Your task to perform on an android device: toggle pop-ups in chrome Image 0: 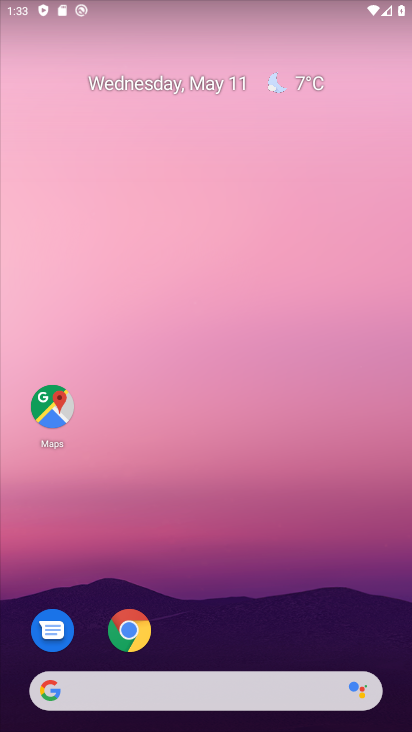
Step 0: drag from (368, 622) to (275, 44)
Your task to perform on an android device: toggle pop-ups in chrome Image 1: 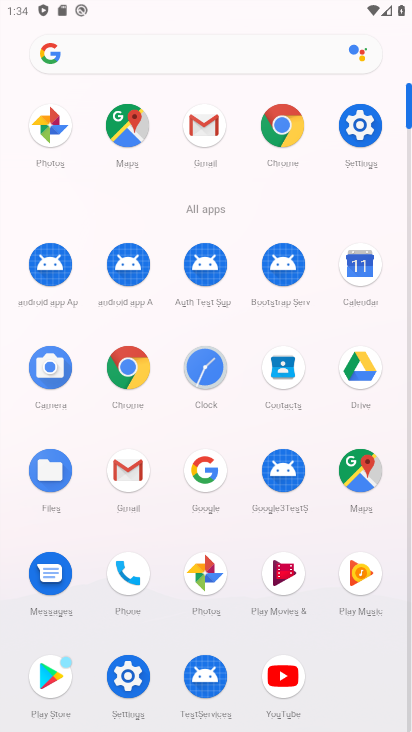
Step 1: click (137, 383)
Your task to perform on an android device: toggle pop-ups in chrome Image 2: 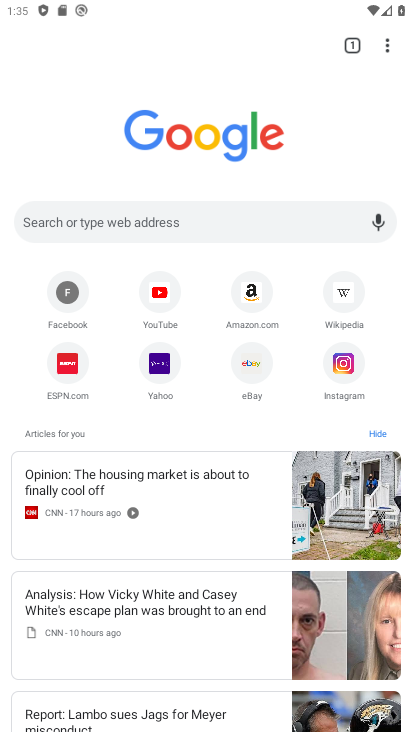
Step 2: click (387, 47)
Your task to perform on an android device: toggle pop-ups in chrome Image 3: 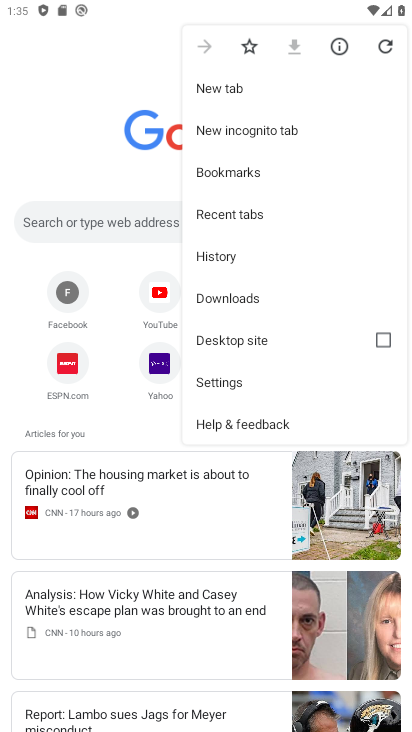
Step 3: click (252, 378)
Your task to perform on an android device: toggle pop-ups in chrome Image 4: 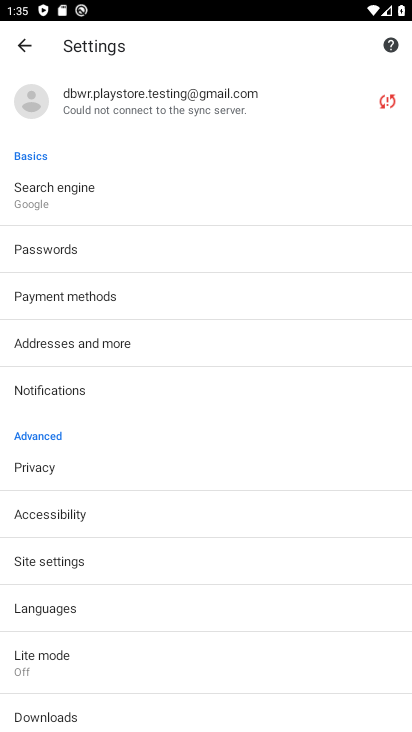
Step 4: click (124, 549)
Your task to perform on an android device: toggle pop-ups in chrome Image 5: 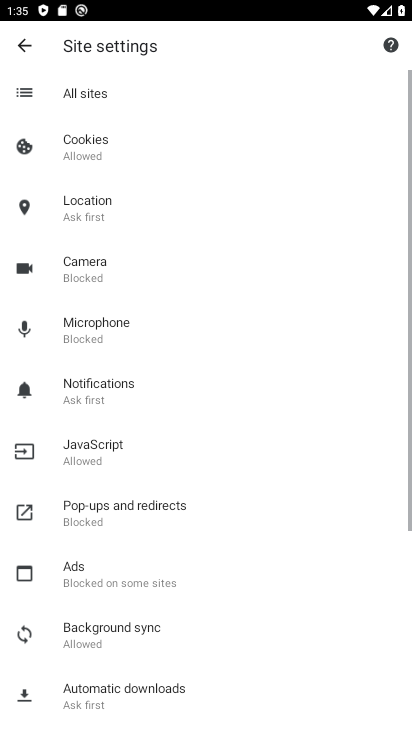
Step 5: click (119, 513)
Your task to perform on an android device: toggle pop-ups in chrome Image 6: 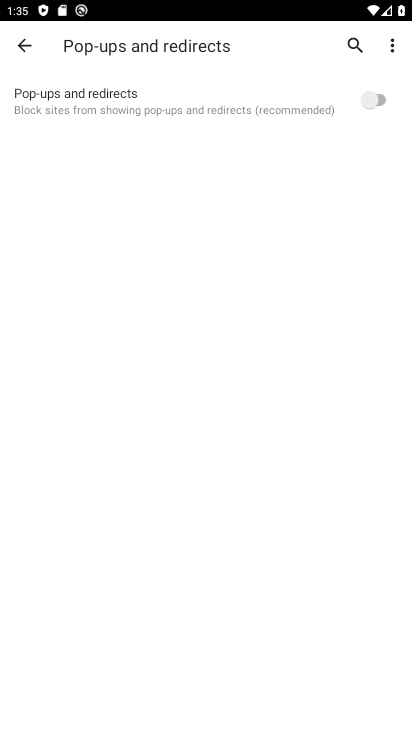
Step 6: click (353, 115)
Your task to perform on an android device: toggle pop-ups in chrome Image 7: 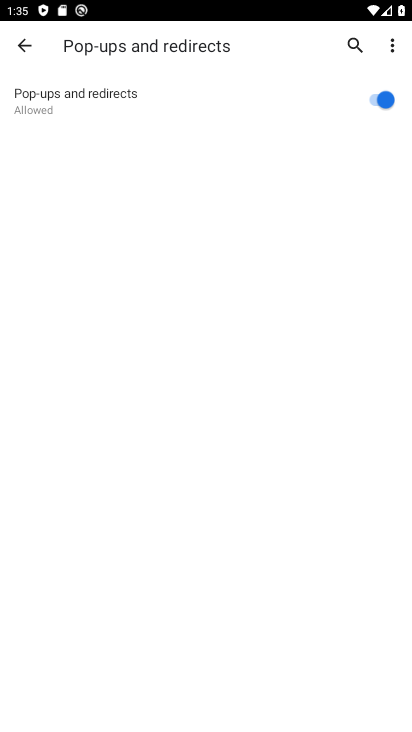
Step 7: task complete